Your task to perform on an android device: open app "Instagram" (install if not already installed) Image 0: 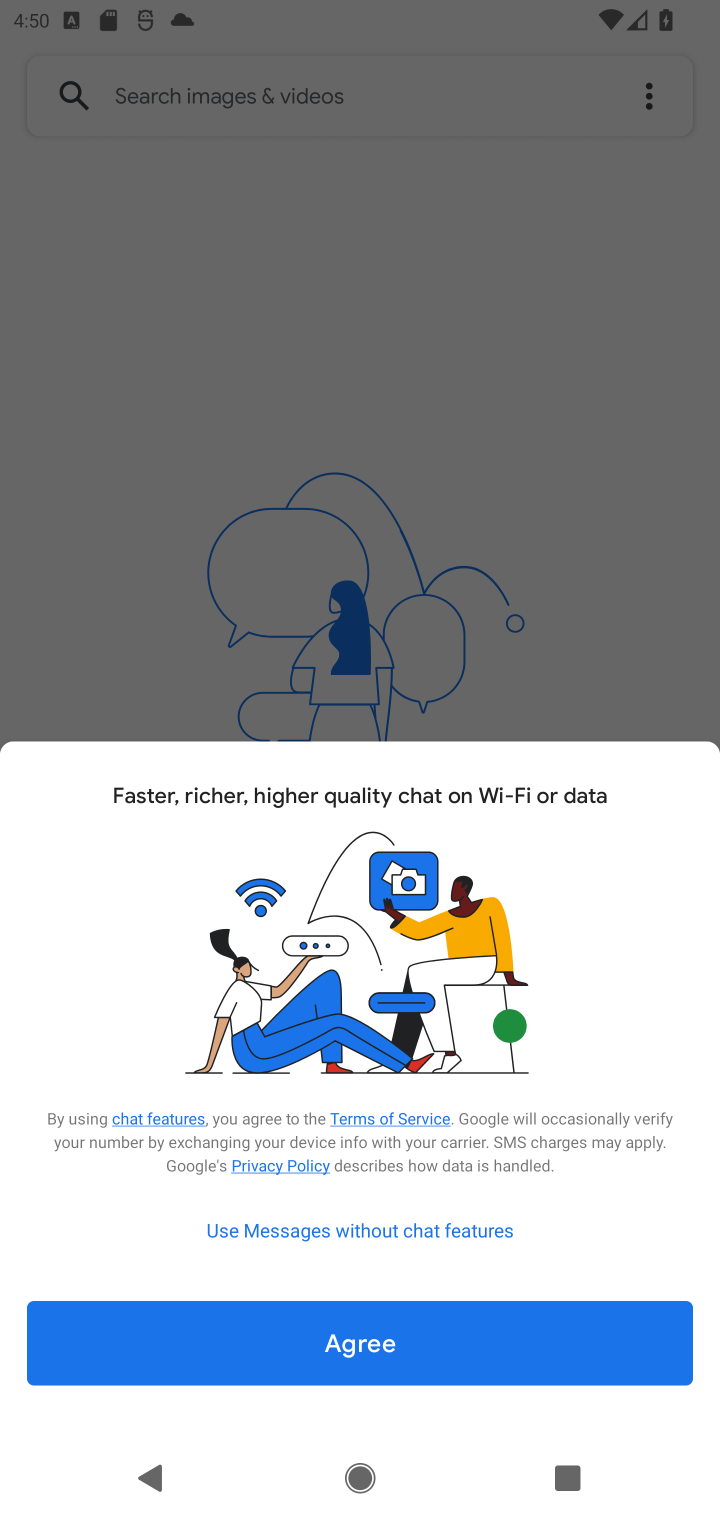
Step 0: press home button
Your task to perform on an android device: open app "Instagram" (install if not already installed) Image 1: 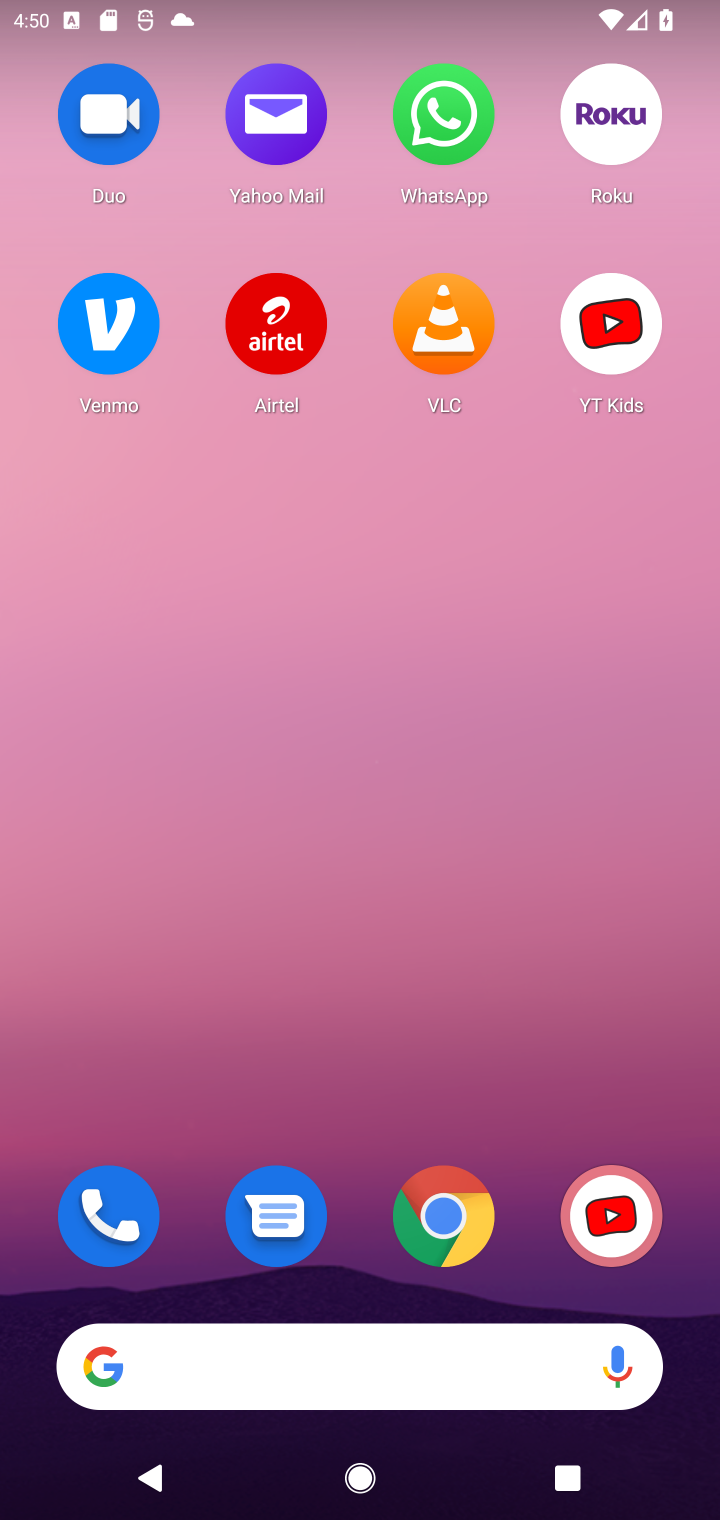
Step 1: drag from (334, 950) to (286, 244)
Your task to perform on an android device: open app "Instagram" (install if not already installed) Image 2: 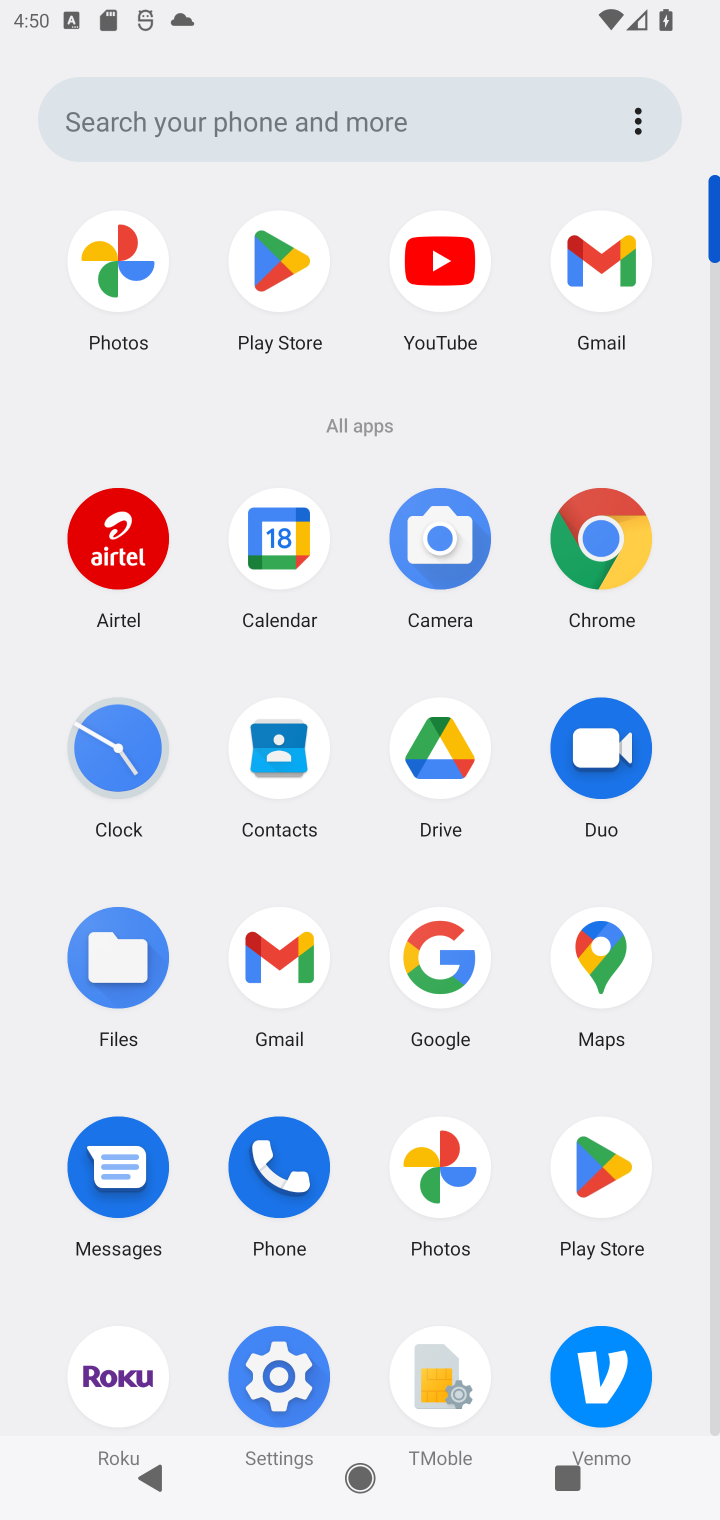
Step 2: click (280, 304)
Your task to perform on an android device: open app "Instagram" (install if not already installed) Image 3: 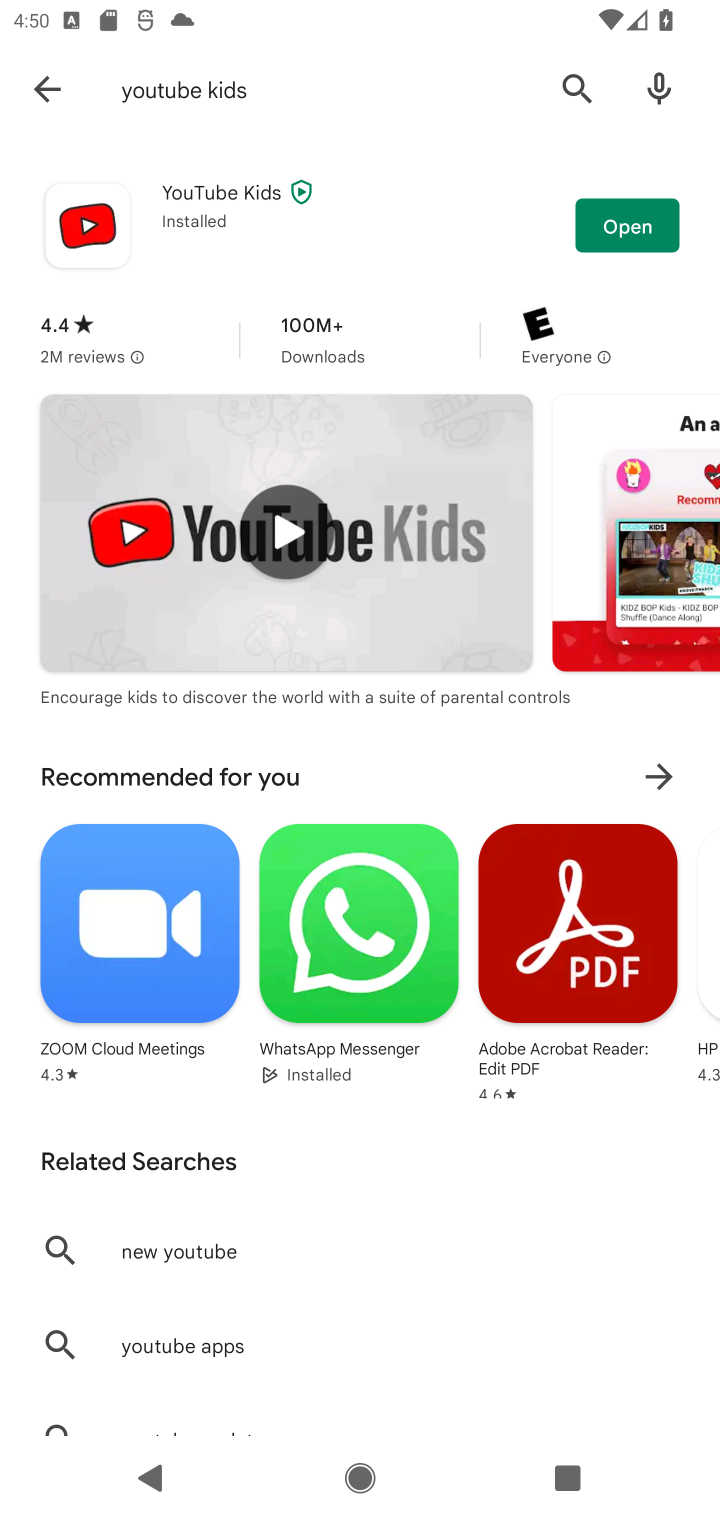
Step 3: click (558, 89)
Your task to perform on an android device: open app "Instagram" (install if not already installed) Image 4: 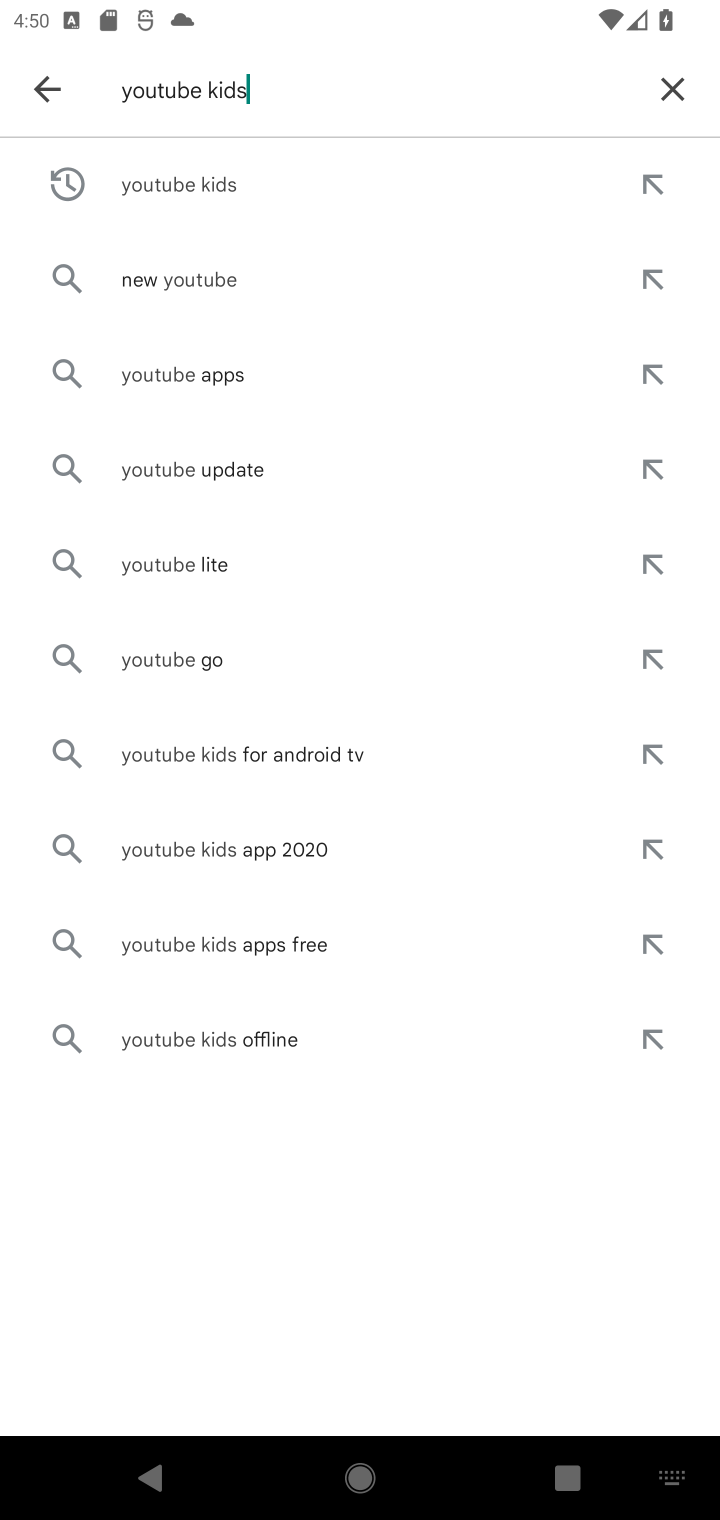
Step 4: click (668, 92)
Your task to perform on an android device: open app "Instagram" (install if not already installed) Image 5: 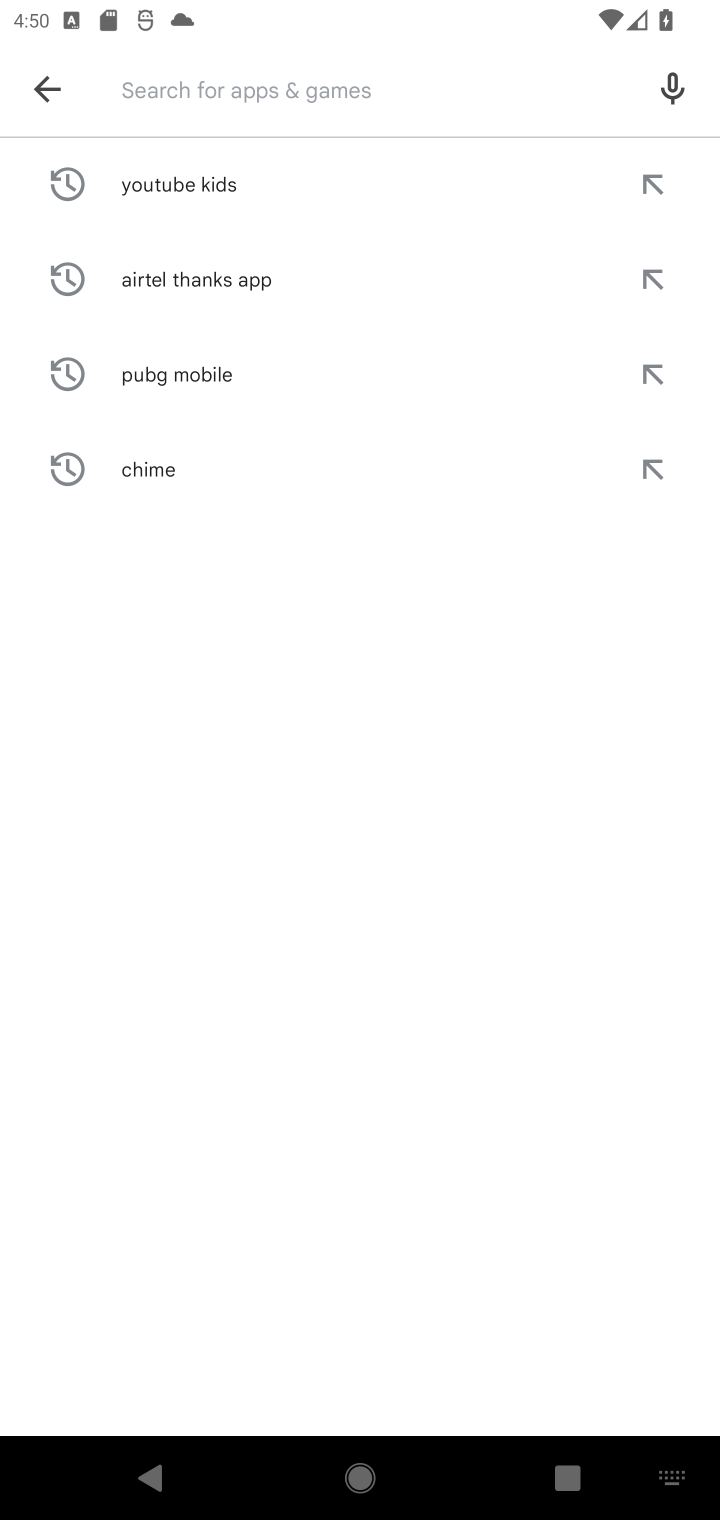
Step 5: type "Instagram"
Your task to perform on an android device: open app "Instagram" (install if not already installed) Image 6: 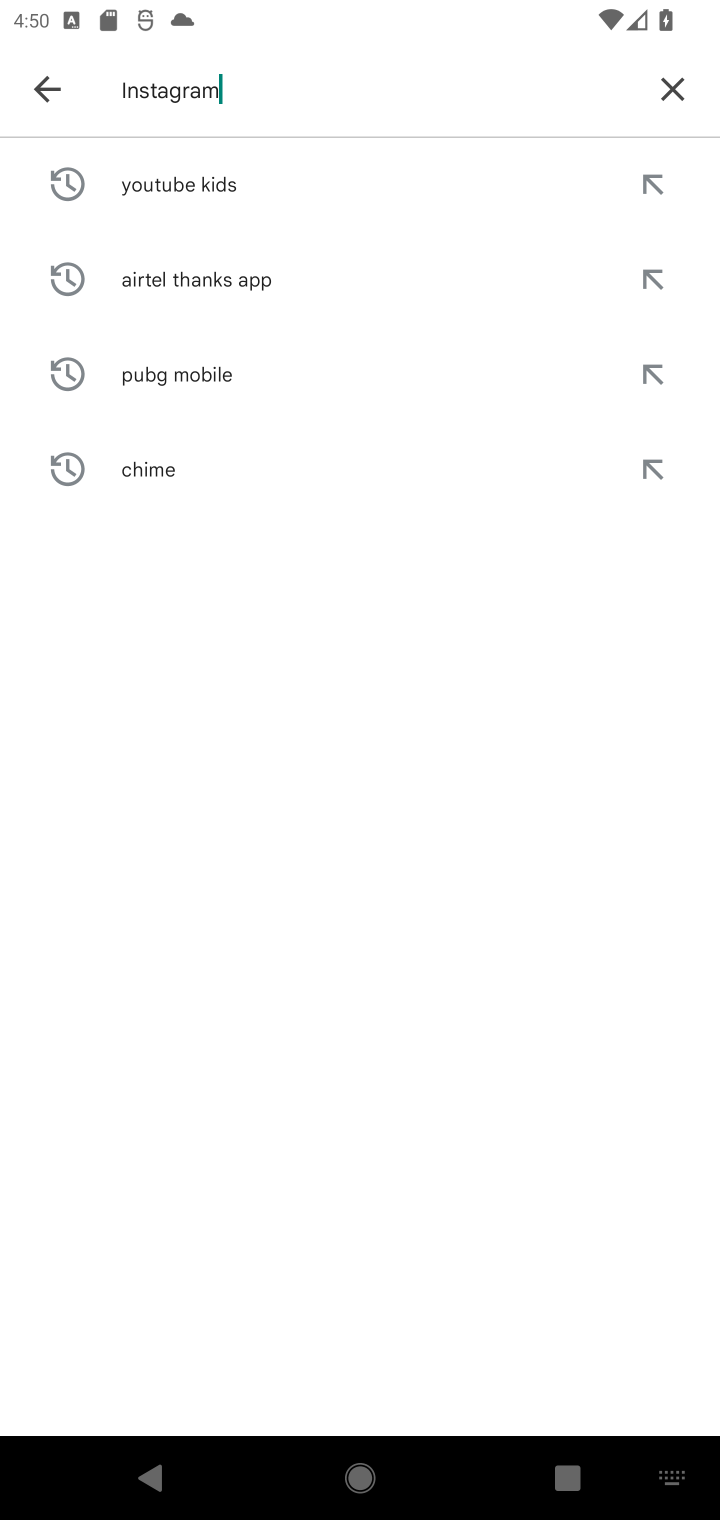
Step 6: type ""
Your task to perform on an android device: open app "Instagram" (install if not already installed) Image 7: 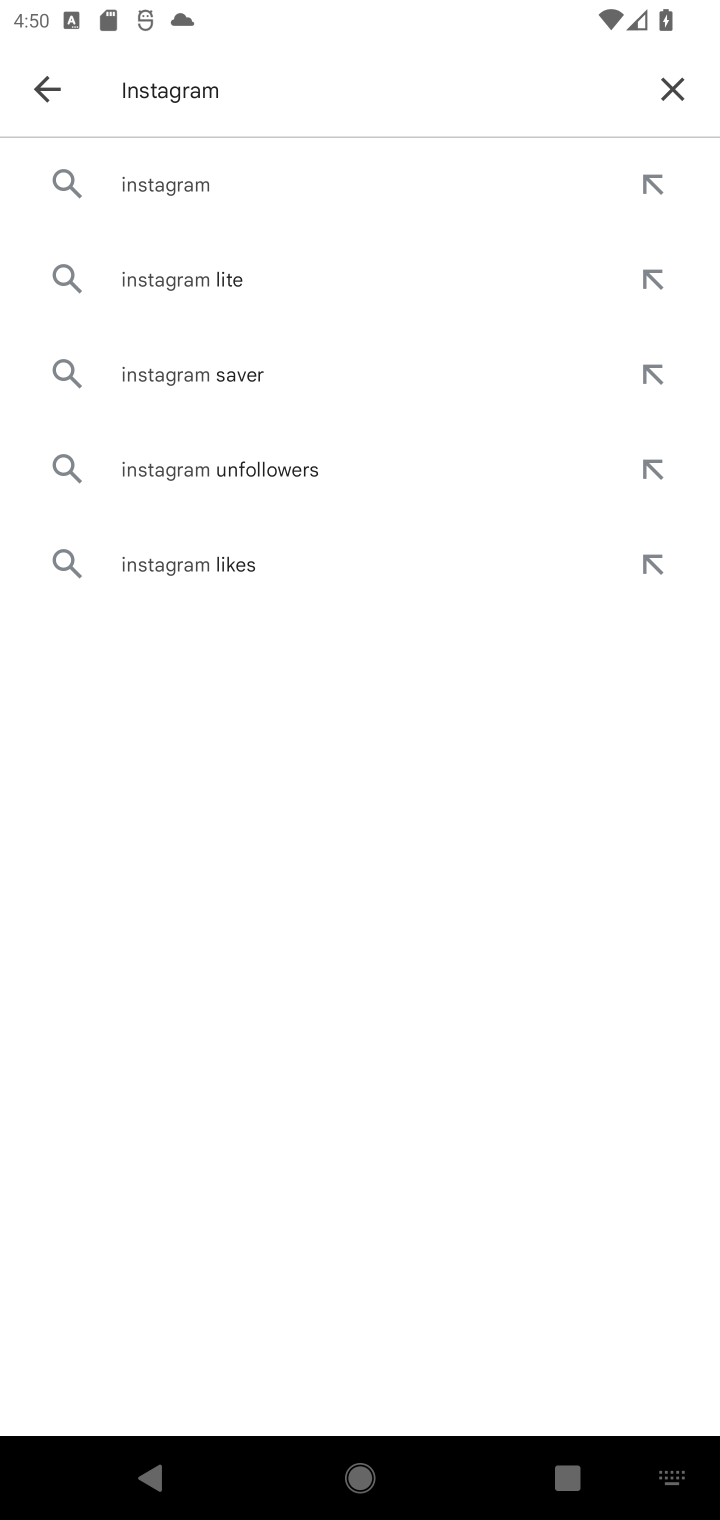
Step 7: click (251, 195)
Your task to perform on an android device: open app "Instagram" (install if not already installed) Image 8: 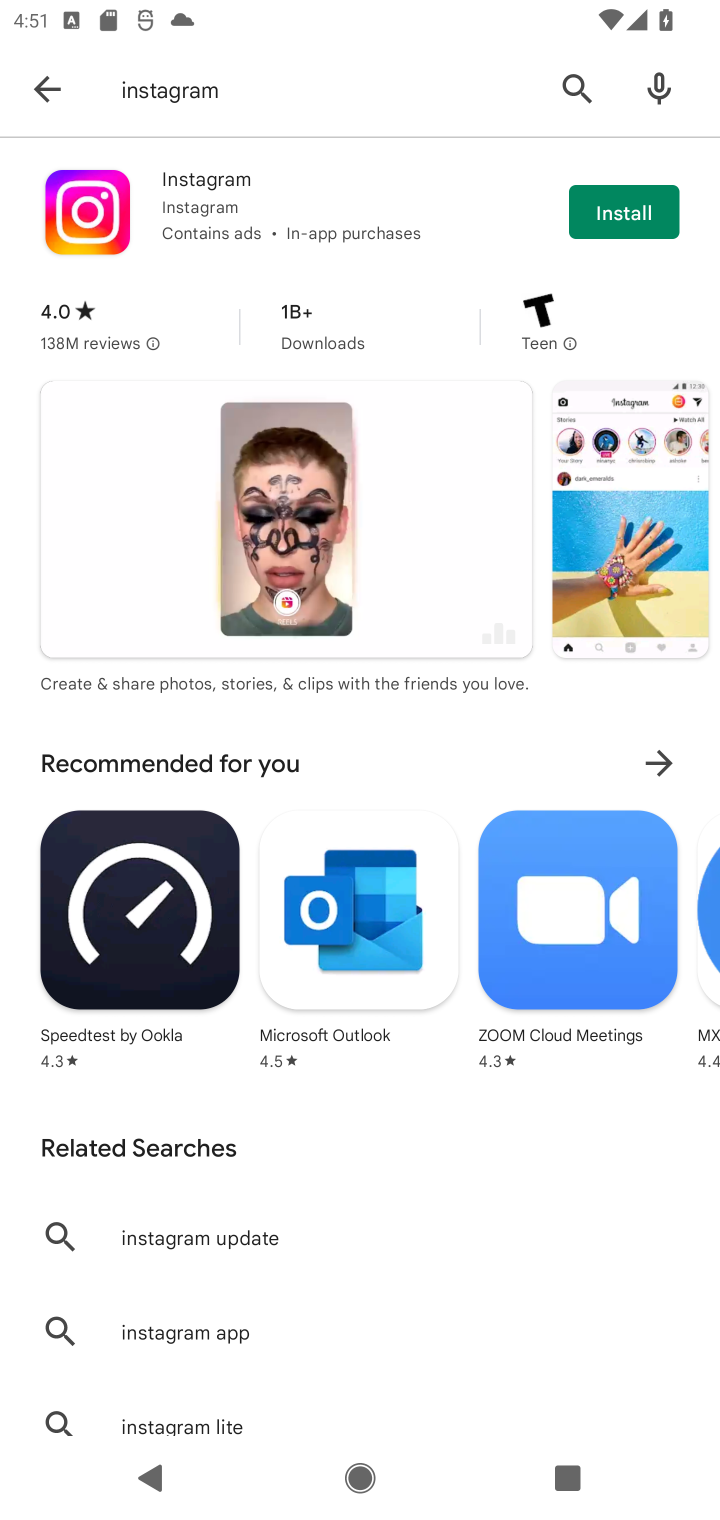
Step 8: click (623, 206)
Your task to perform on an android device: open app "Instagram" (install if not already installed) Image 9: 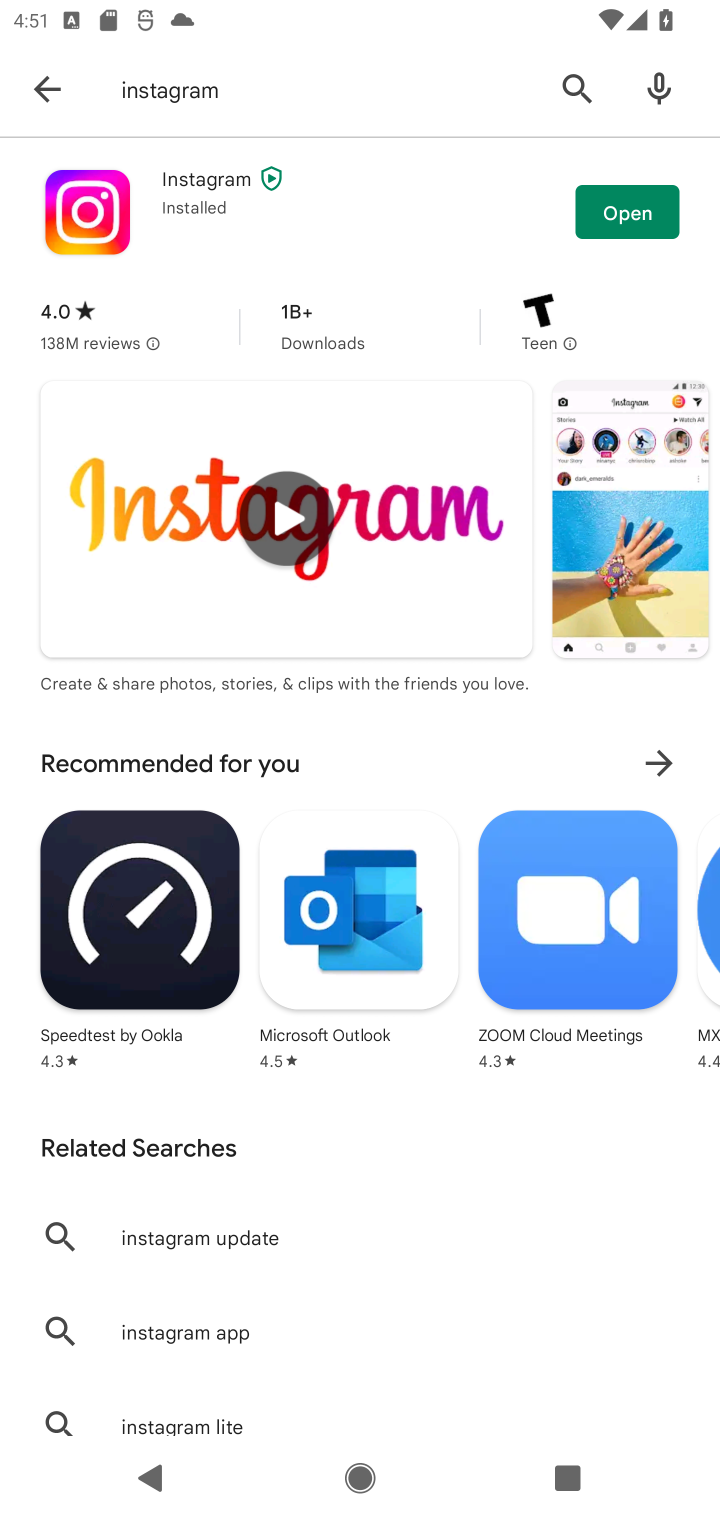
Step 9: click (618, 193)
Your task to perform on an android device: open app "Instagram" (install if not already installed) Image 10: 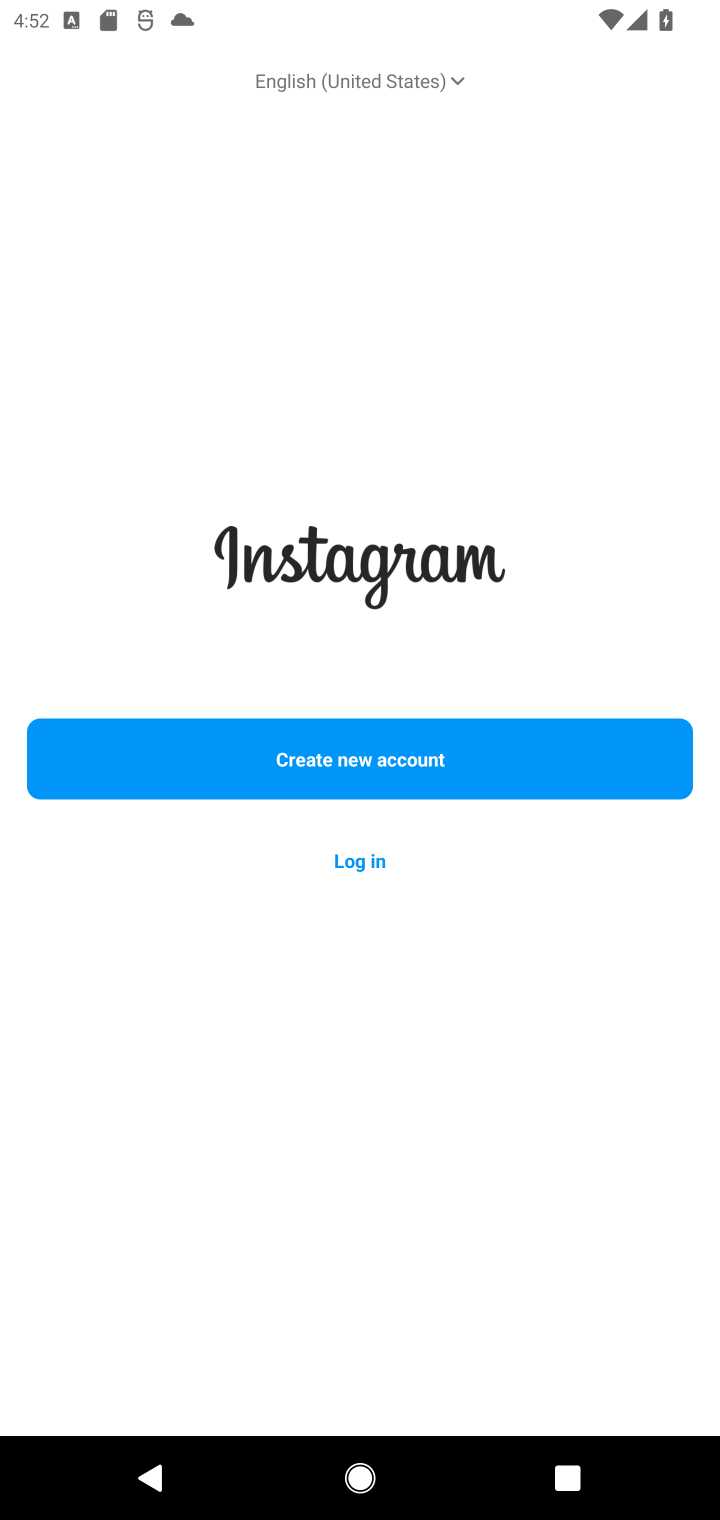
Step 10: task complete